Your task to perform on an android device: Go to wifi settings Image 0: 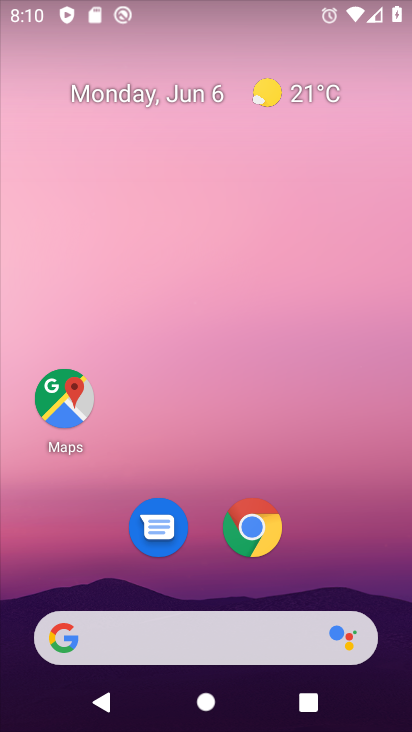
Step 0: drag from (133, 10) to (194, 455)
Your task to perform on an android device: Go to wifi settings Image 1: 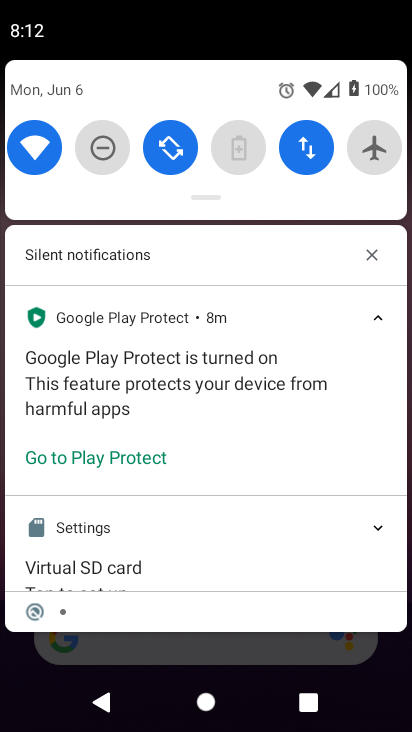
Step 1: click (30, 153)
Your task to perform on an android device: Go to wifi settings Image 2: 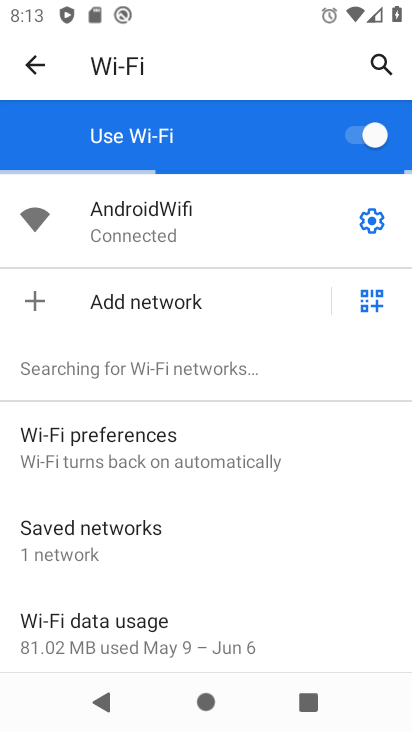
Step 2: task complete